Your task to perform on an android device: Open sound settings Image 0: 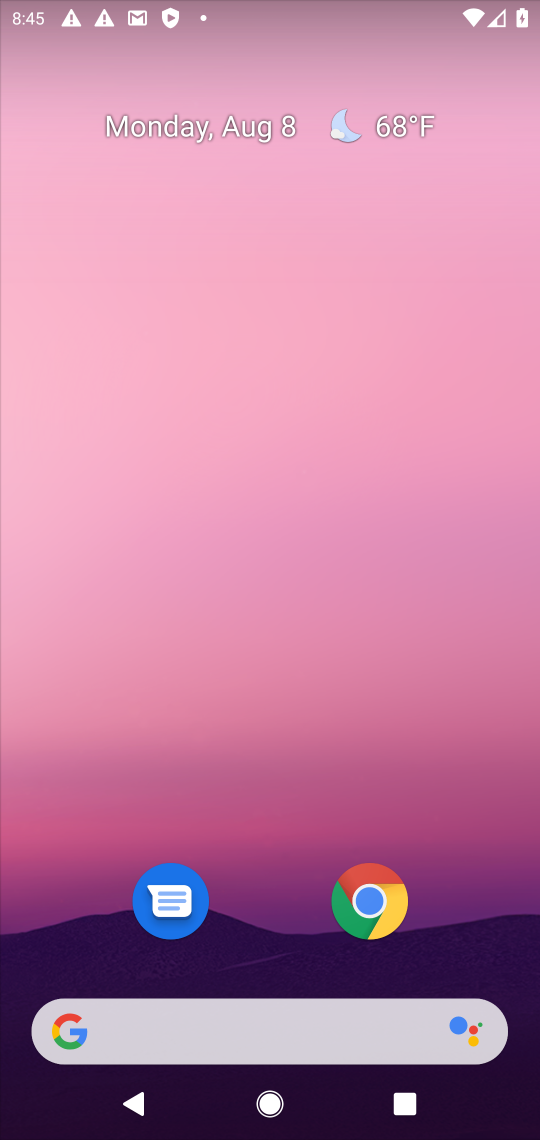
Step 0: click (219, 125)
Your task to perform on an android device: Open sound settings Image 1: 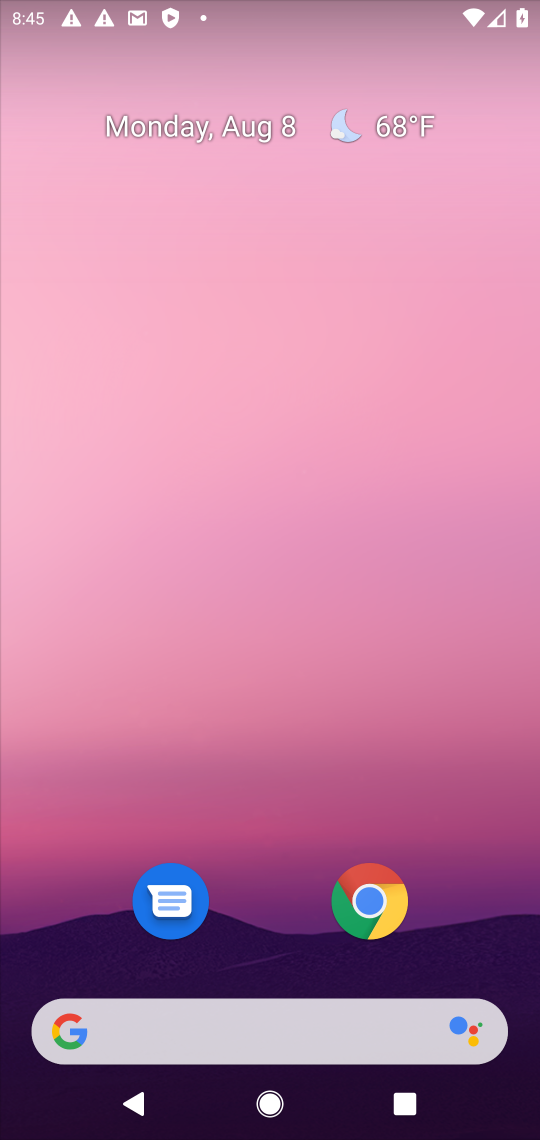
Step 1: drag from (261, 810) to (259, 305)
Your task to perform on an android device: Open sound settings Image 2: 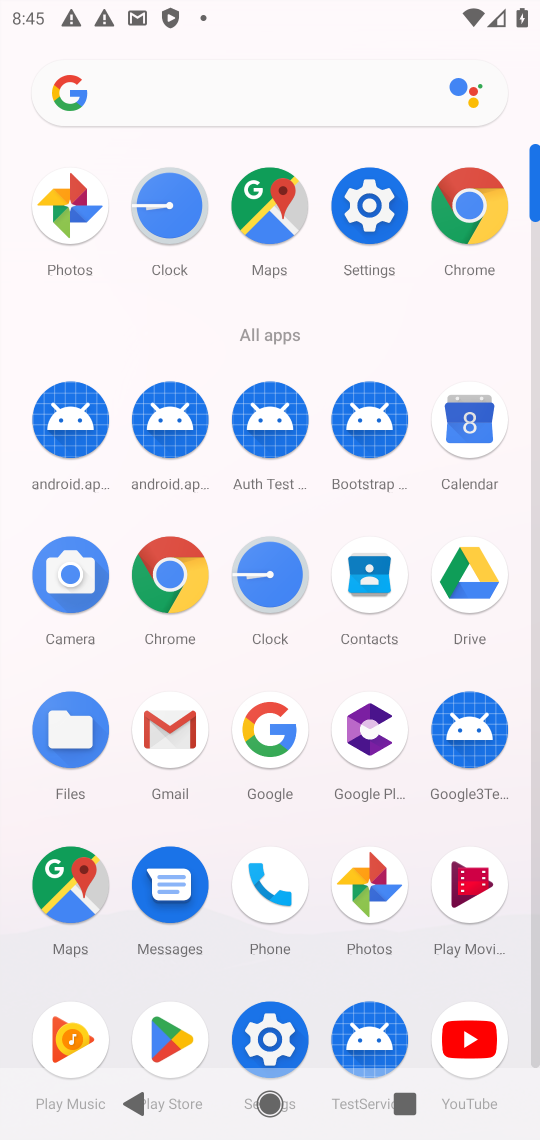
Step 2: click (361, 203)
Your task to perform on an android device: Open sound settings Image 3: 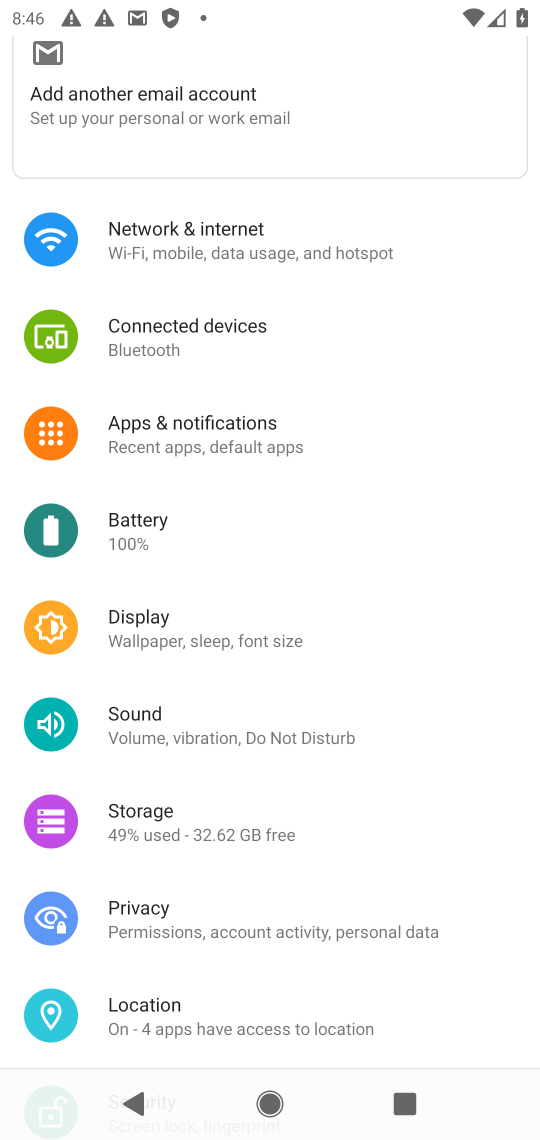
Step 3: click (126, 726)
Your task to perform on an android device: Open sound settings Image 4: 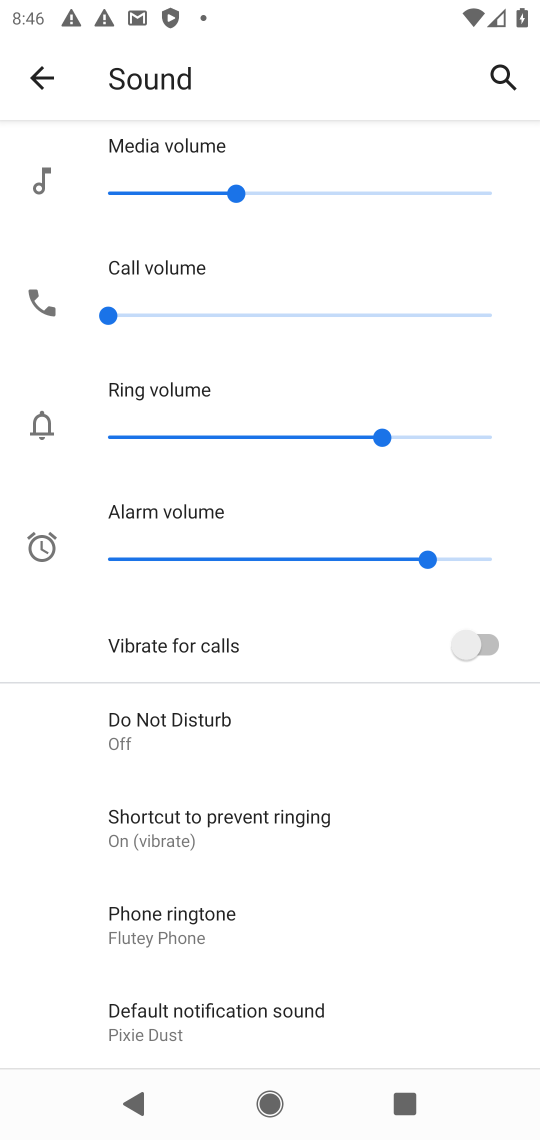
Step 4: task complete